Your task to perform on an android device: Search for "dell xps" on target, select the first entry, add it to the cart, then select checkout. Image 0: 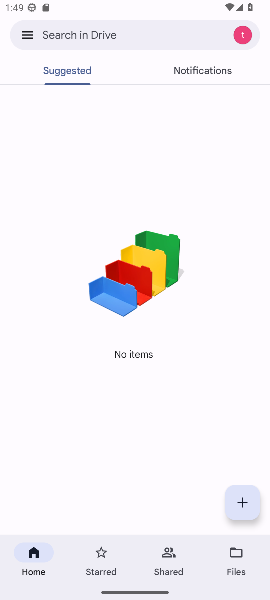
Step 0: task complete